Your task to perform on an android device: Search for sushi restaurants on Maps Image 0: 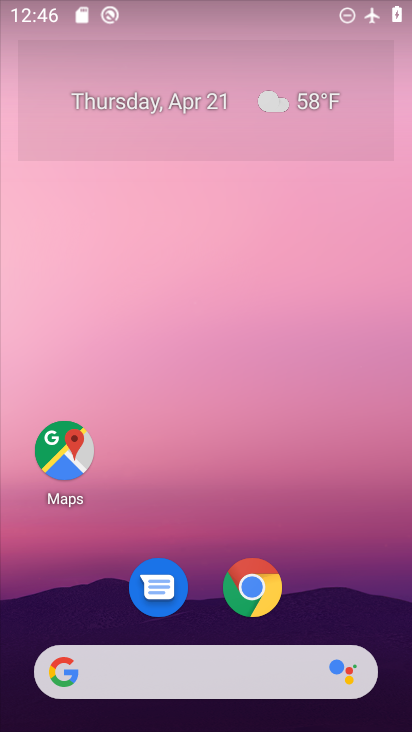
Step 0: click (66, 457)
Your task to perform on an android device: Search for sushi restaurants on Maps Image 1: 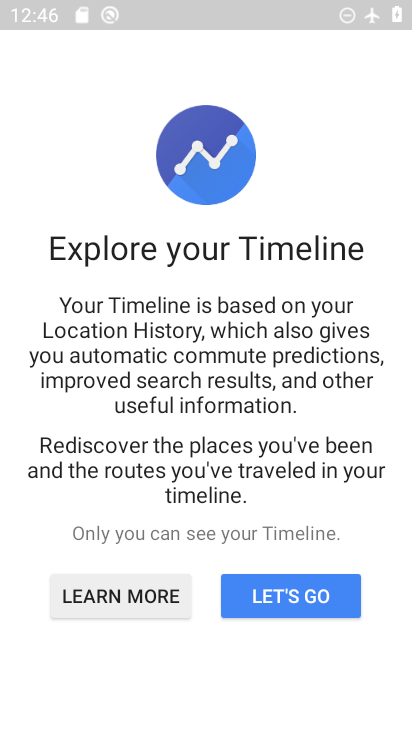
Step 1: press back button
Your task to perform on an android device: Search for sushi restaurants on Maps Image 2: 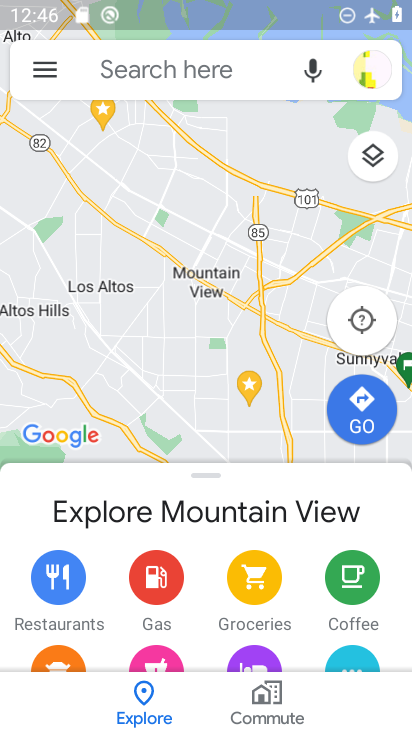
Step 2: click (204, 72)
Your task to perform on an android device: Search for sushi restaurants on Maps Image 3: 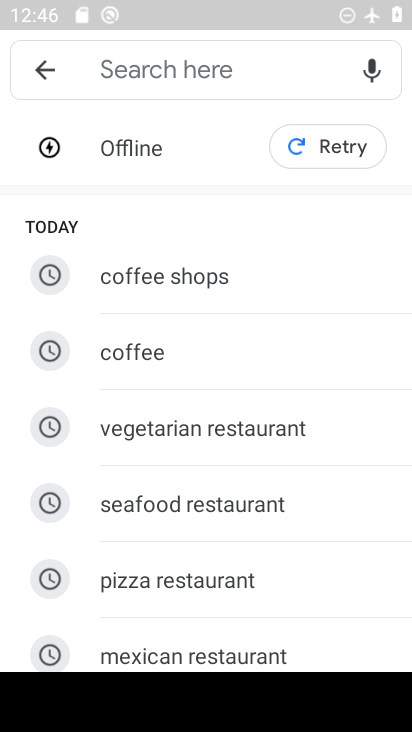
Step 3: type "sushi restaurants"
Your task to perform on an android device: Search for sushi restaurants on Maps Image 4: 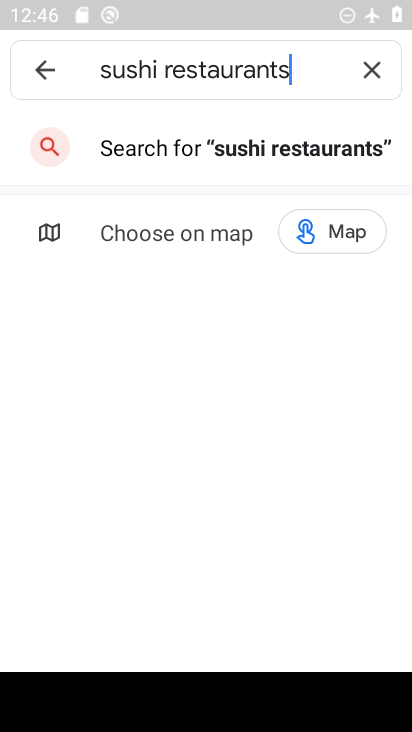
Step 4: click (326, 154)
Your task to perform on an android device: Search for sushi restaurants on Maps Image 5: 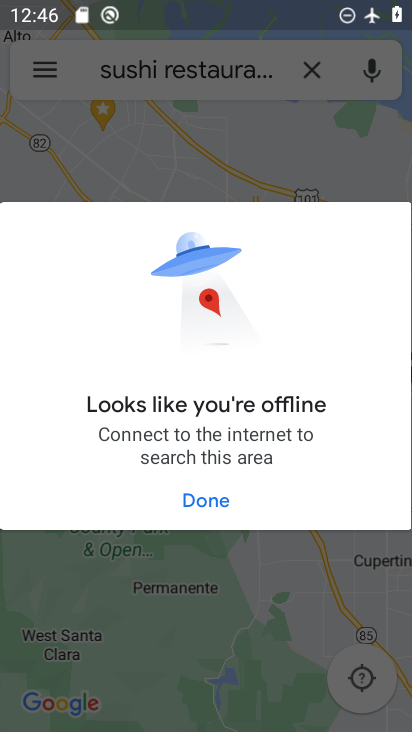
Step 5: click (204, 494)
Your task to perform on an android device: Search for sushi restaurants on Maps Image 6: 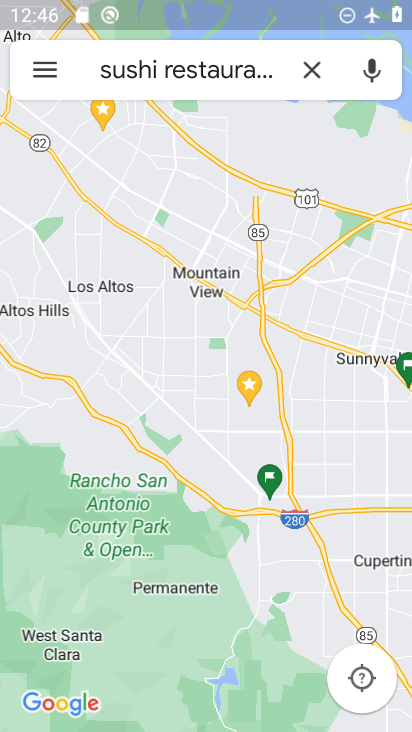
Step 6: task complete